Your task to perform on an android device: Open Yahoo.com Image 0: 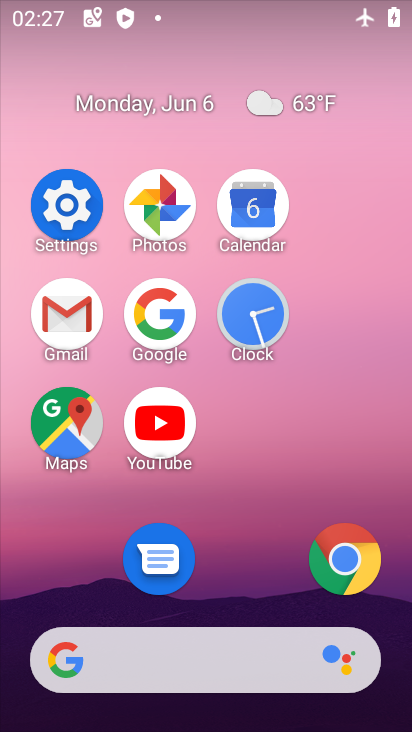
Step 0: click (350, 582)
Your task to perform on an android device: Open Yahoo.com Image 1: 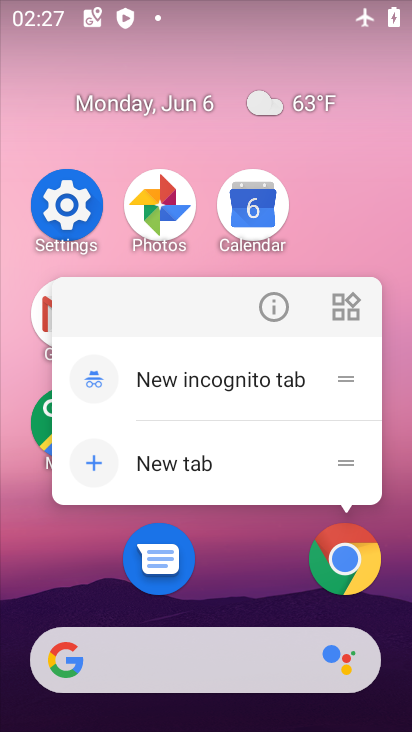
Step 1: click (350, 582)
Your task to perform on an android device: Open Yahoo.com Image 2: 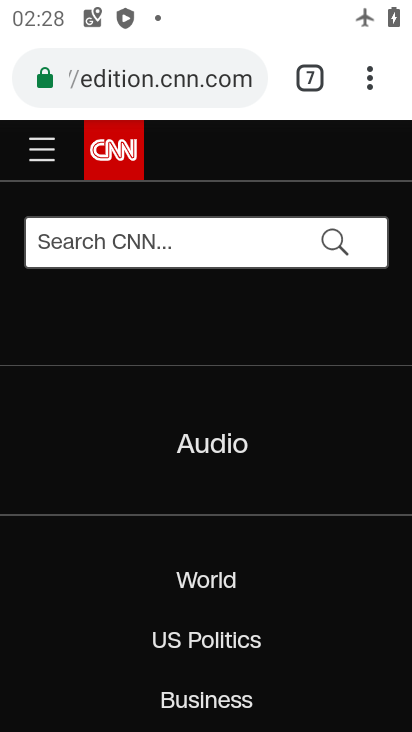
Step 2: click (310, 86)
Your task to perform on an android device: Open Yahoo.com Image 3: 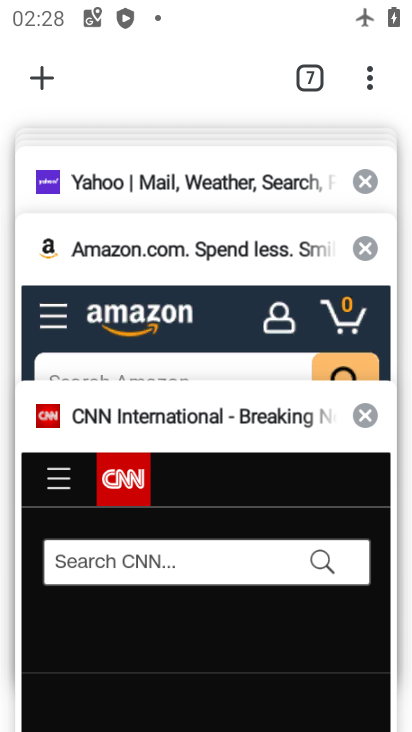
Step 3: drag from (167, 269) to (164, 536)
Your task to perform on an android device: Open Yahoo.com Image 4: 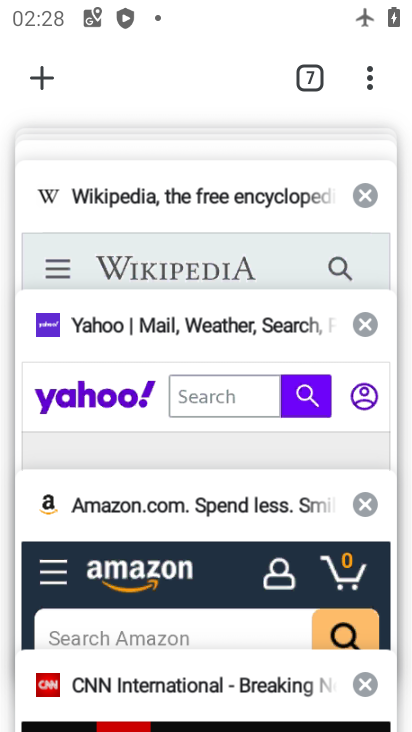
Step 4: click (133, 328)
Your task to perform on an android device: Open Yahoo.com Image 5: 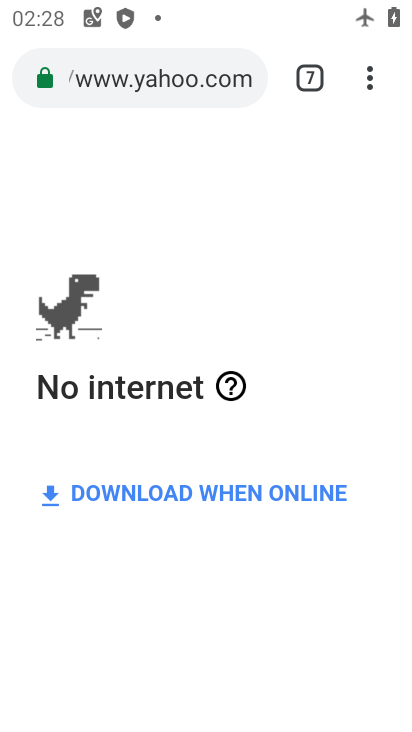
Step 5: task complete